Your task to perform on an android device: add a contact Image 0: 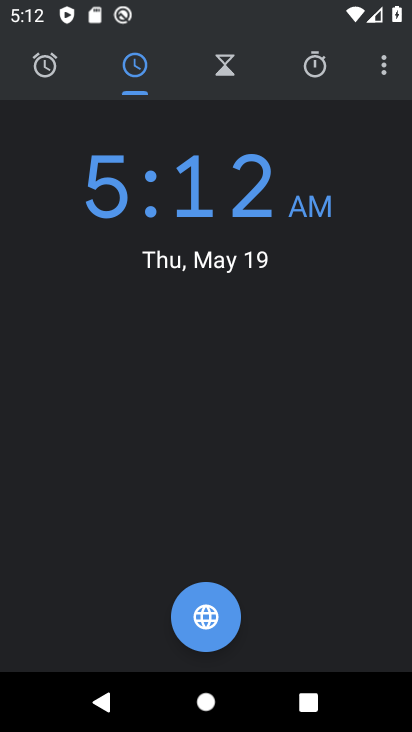
Step 0: press back button
Your task to perform on an android device: add a contact Image 1: 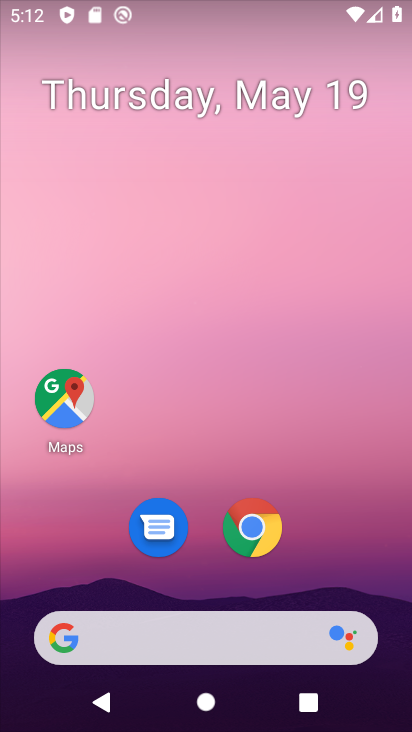
Step 1: drag from (316, 453) to (288, 26)
Your task to perform on an android device: add a contact Image 2: 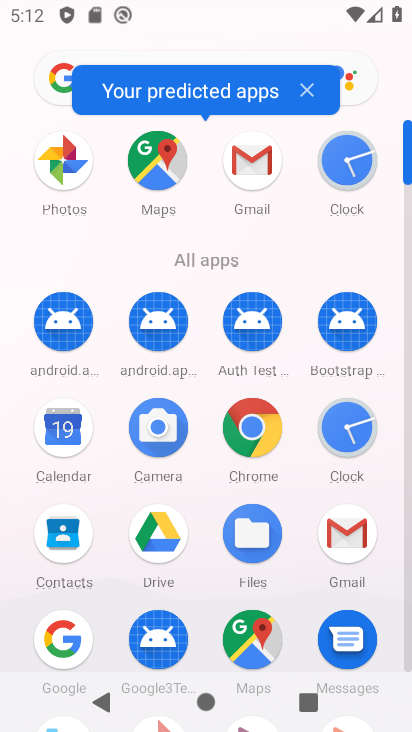
Step 2: click (65, 531)
Your task to perform on an android device: add a contact Image 3: 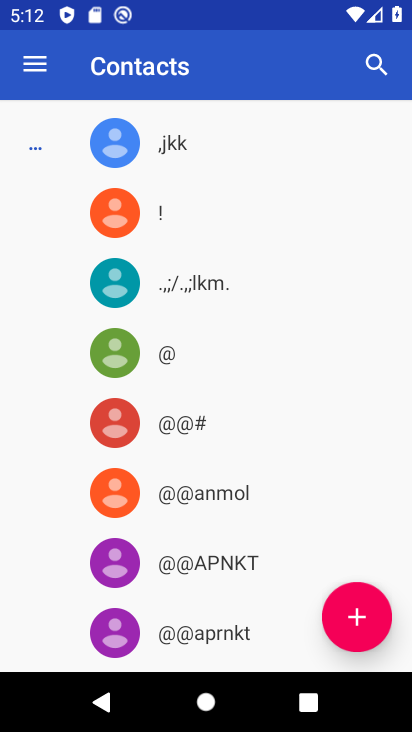
Step 3: click (353, 613)
Your task to perform on an android device: add a contact Image 4: 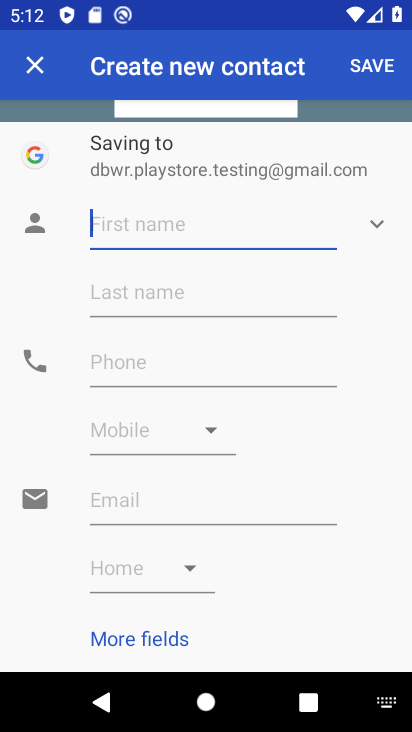
Step 4: click (194, 225)
Your task to perform on an android device: add a contact Image 5: 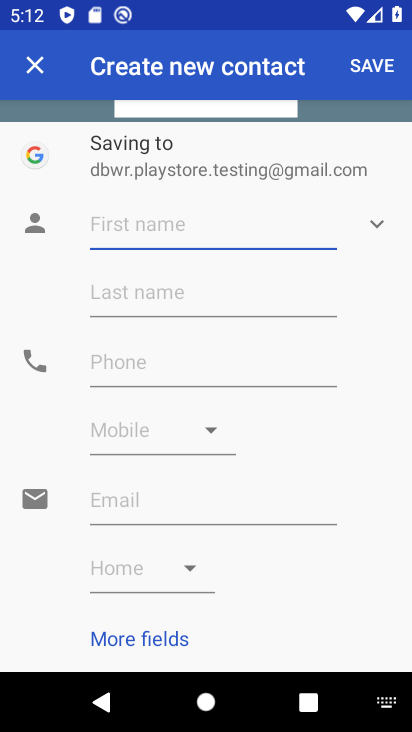
Step 5: type "Vektash"
Your task to perform on an android device: add a contact Image 6: 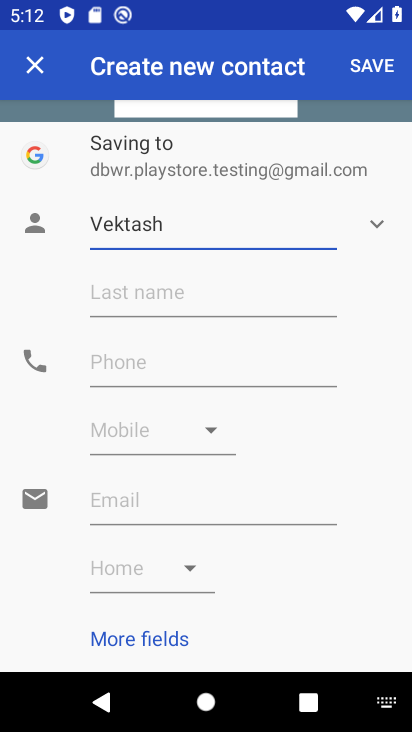
Step 6: click (241, 290)
Your task to perform on an android device: add a contact Image 7: 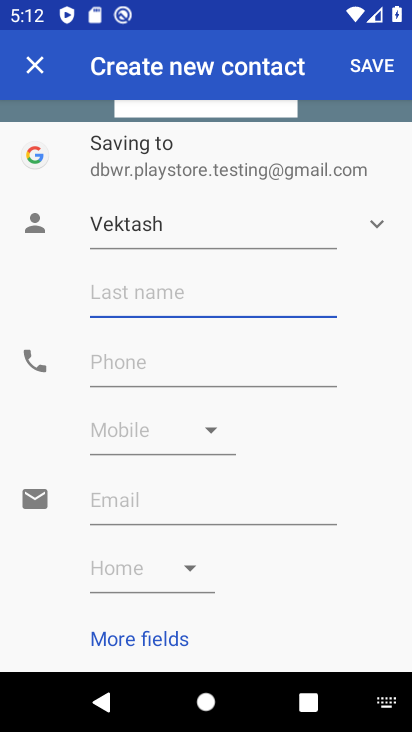
Step 7: type "Prasad"
Your task to perform on an android device: add a contact Image 8: 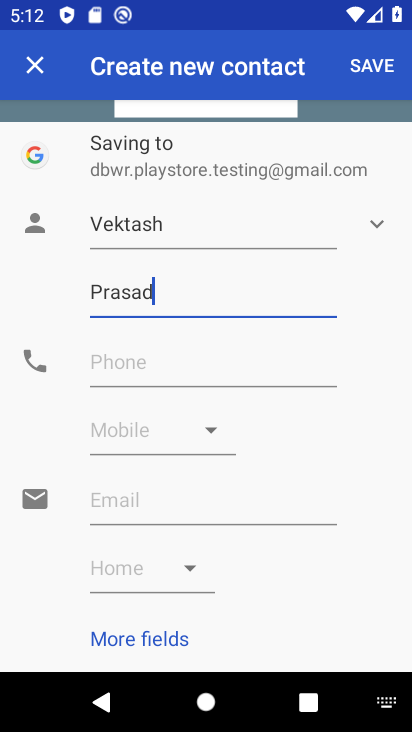
Step 8: click (230, 374)
Your task to perform on an android device: add a contact Image 9: 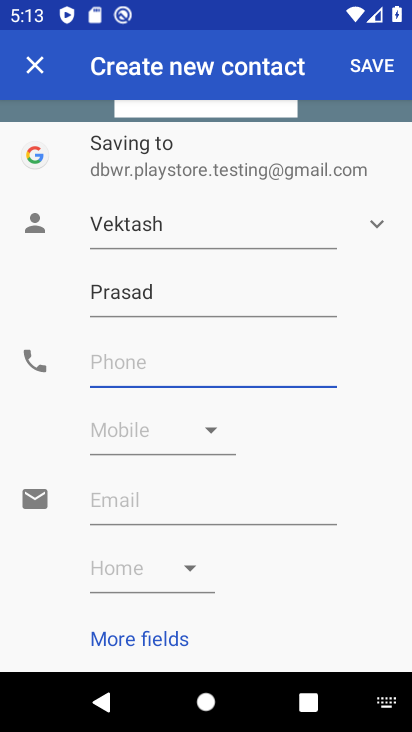
Step 9: type "0987675784"
Your task to perform on an android device: add a contact Image 10: 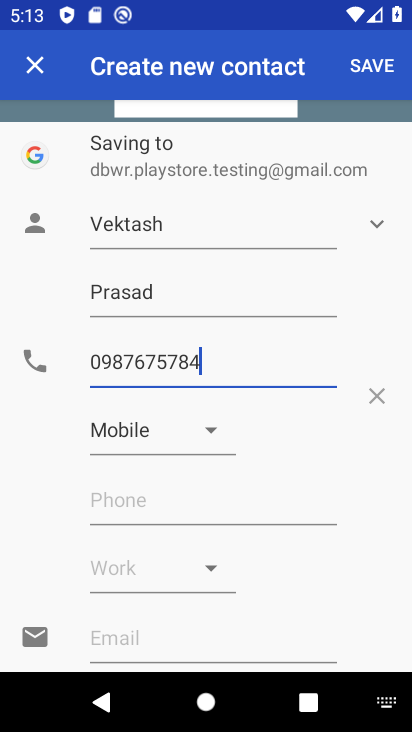
Step 10: click (389, 67)
Your task to perform on an android device: add a contact Image 11: 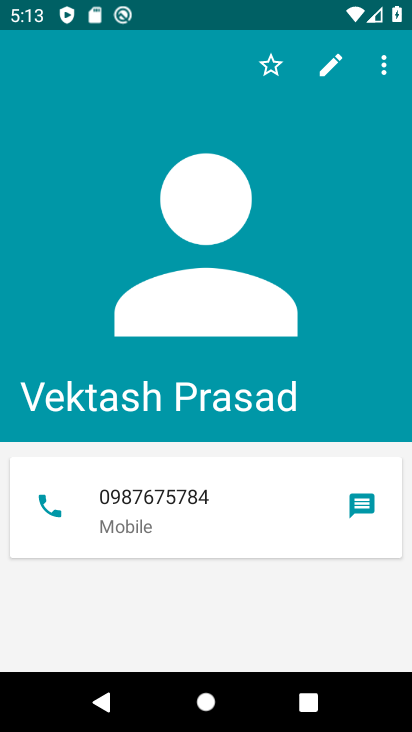
Step 11: task complete